Your task to perform on an android device: set an alarm Image 0: 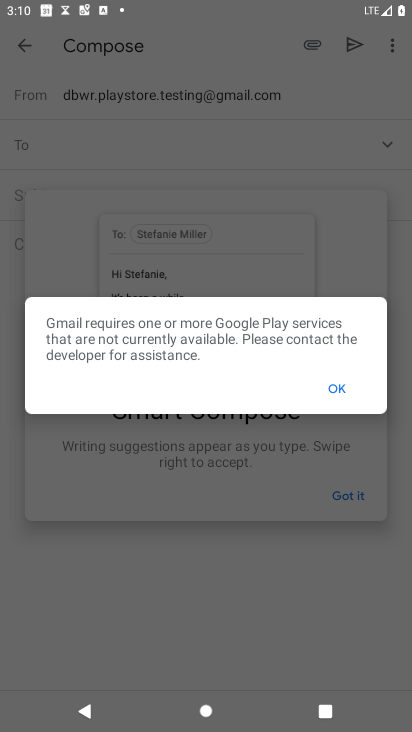
Step 0: press home button
Your task to perform on an android device: set an alarm Image 1: 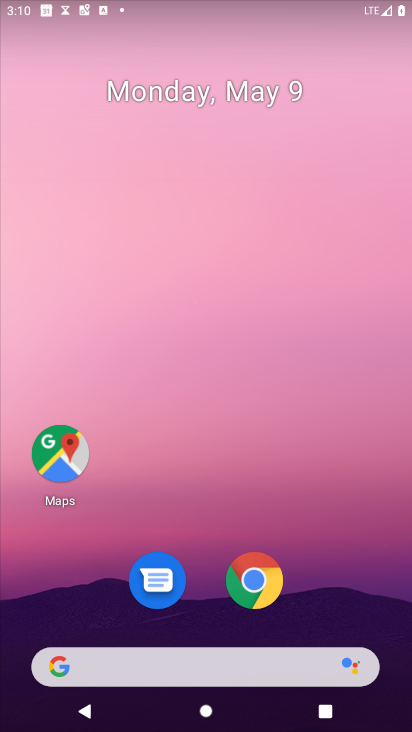
Step 1: drag from (311, 605) to (224, 169)
Your task to perform on an android device: set an alarm Image 2: 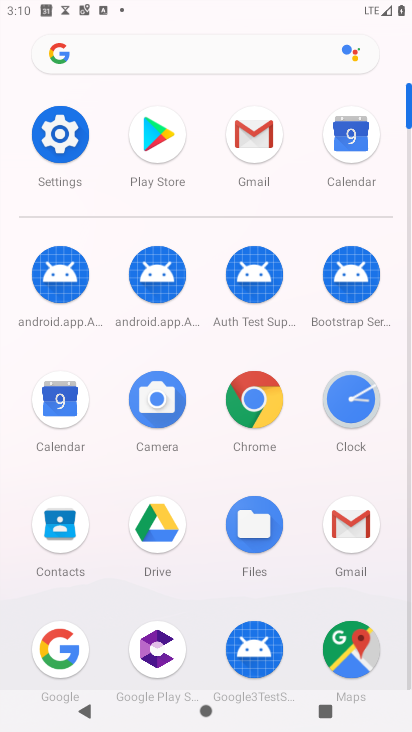
Step 2: click (350, 409)
Your task to perform on an android device: set an alarm Image 3: 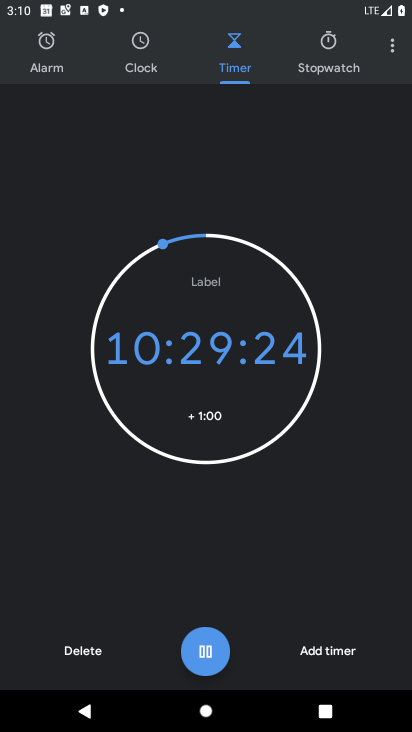
Step 3: click (54, 57)
Your task to perform on an android device: set an alarm Image 4: 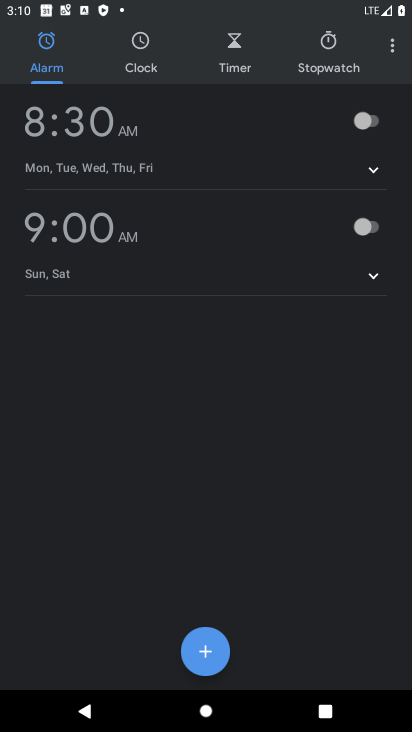
Step 4: click (375, 123)
Your task to perform on an android device: set an alarm Image 5: 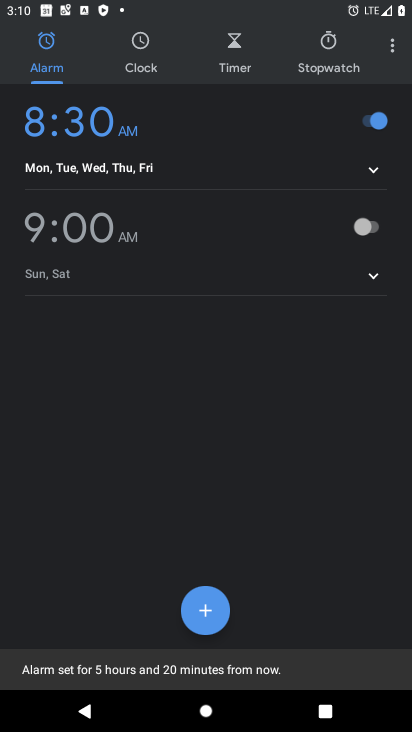
Step 5: task complete